Your task to perform on an android device: Open location settings Image 0: 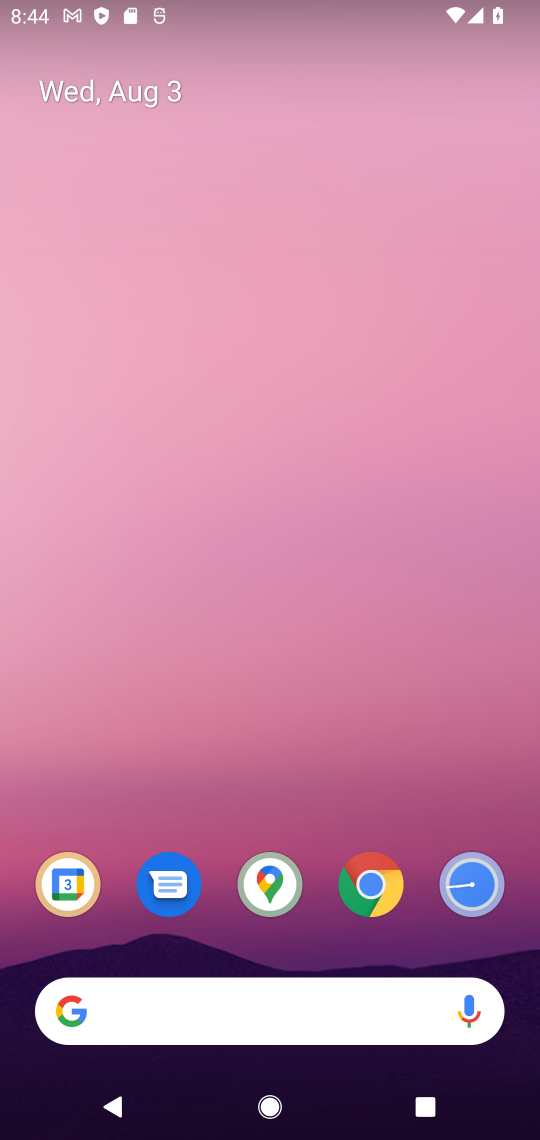
Step 0: drag from (40, 1097) to (279, 274)
Your task to perform on an android device: Open location settings Image 1: 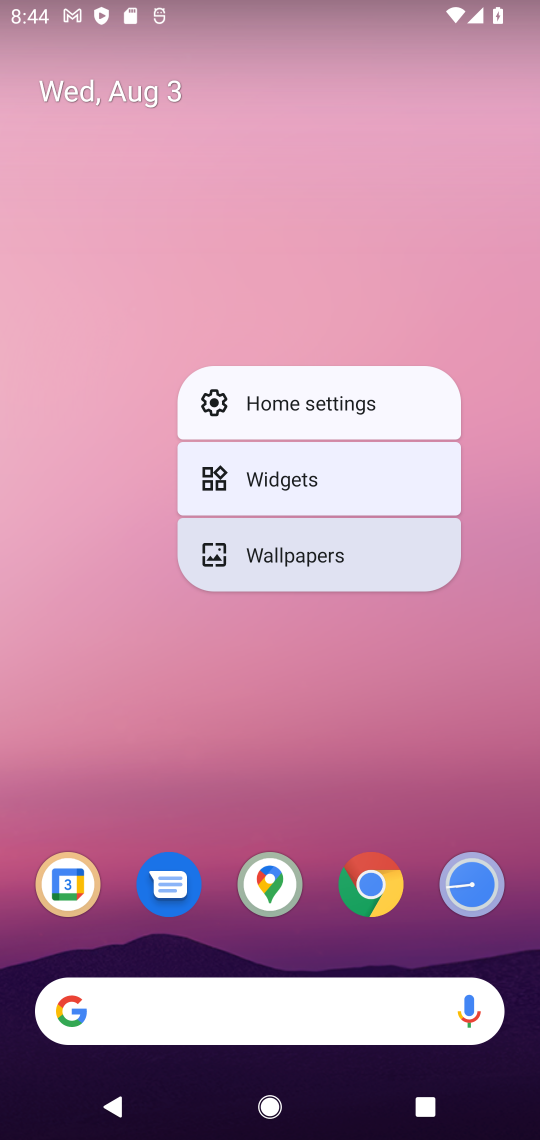
Step 1: click (258, 856)
Your task to perform on an android device: Open location settings Image 2: 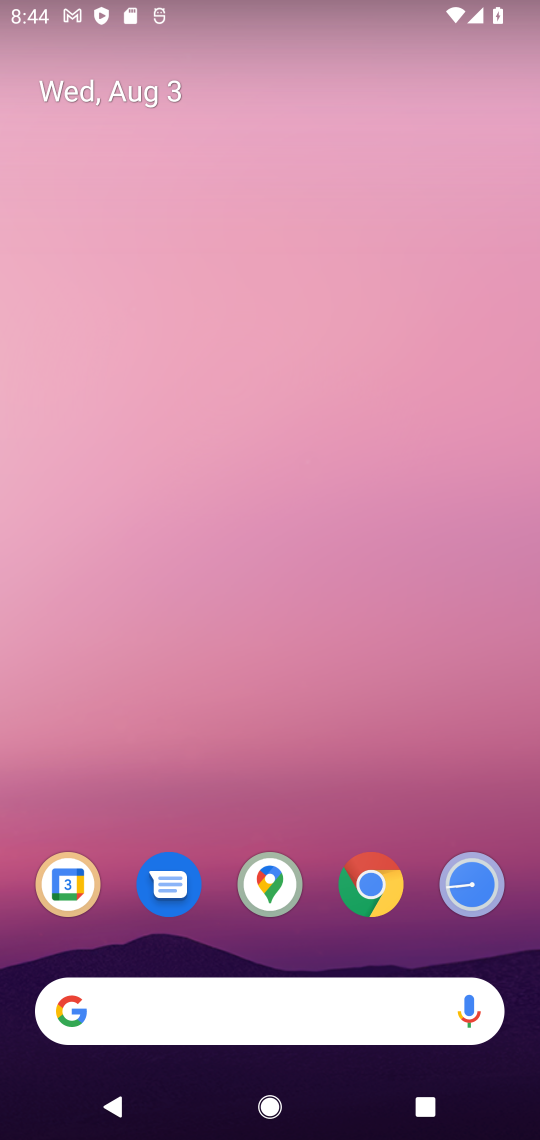
Step 2: click (265, 895)
Your task to perform on an android device: Open location settings Image 3: 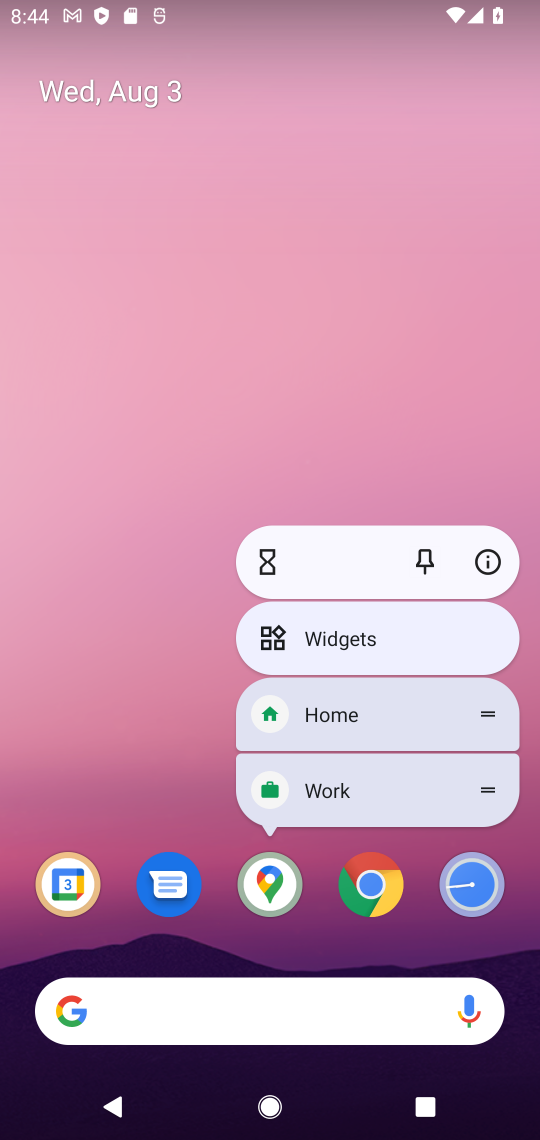
Step 3: click (288, 899)
Your task to perform on an android device: Open location settings Image 4: 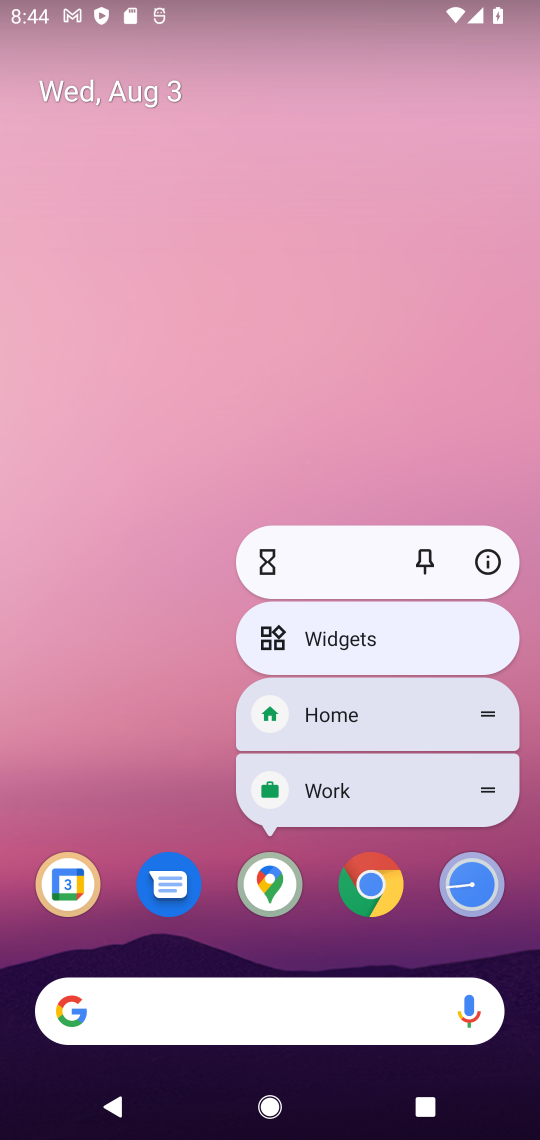
Step 4: drag from (245, 831) to (260, 883)
Your task to perform on an android device: Open location settings Image 5: 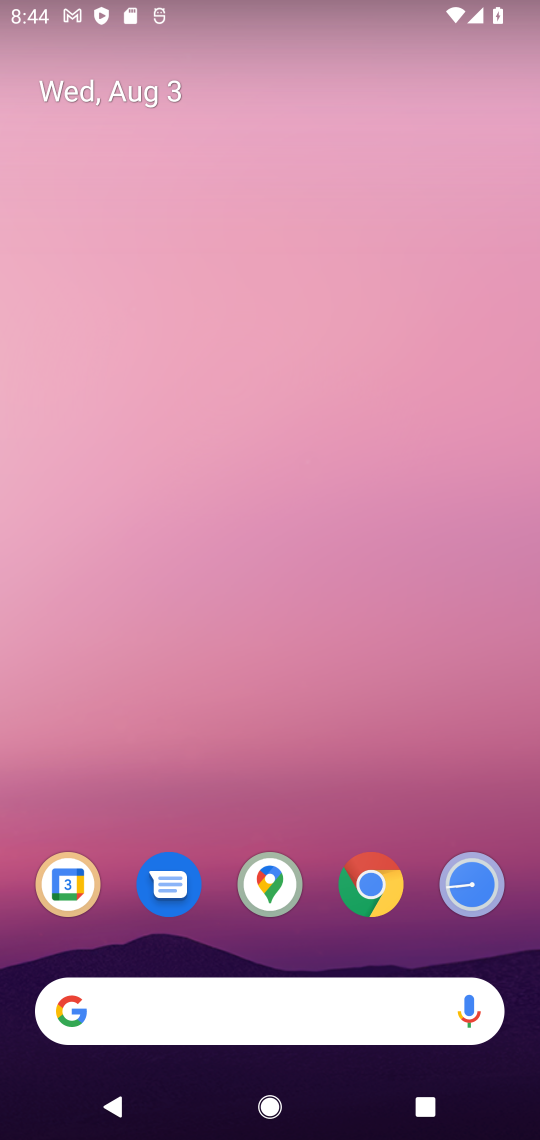
Step 5: click (278, 874)
Your task to perform on an android device: Open location settings Image 6: 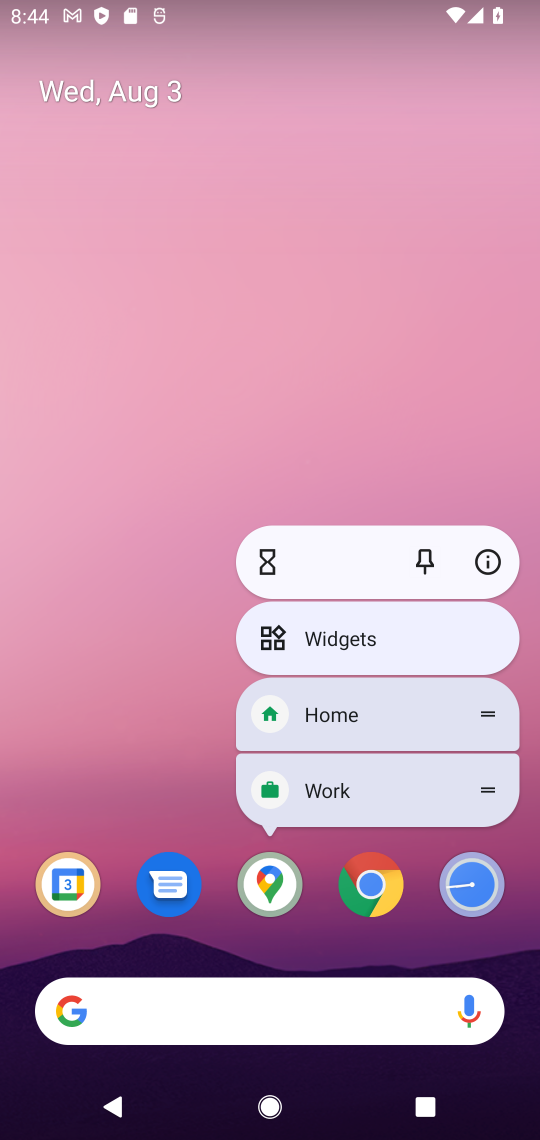
Step 6: task complete